Your task to perform on an android device: change the clock display to analog Image 0: 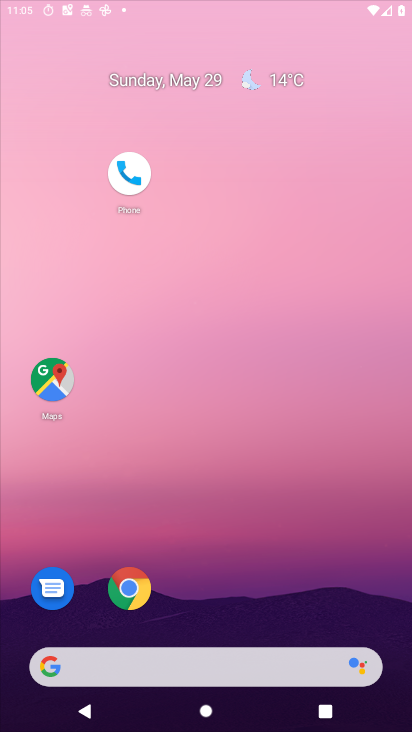
Step 0: click (51, 249)
Your task to perform on an android device: change the clock display to analog Image 1: 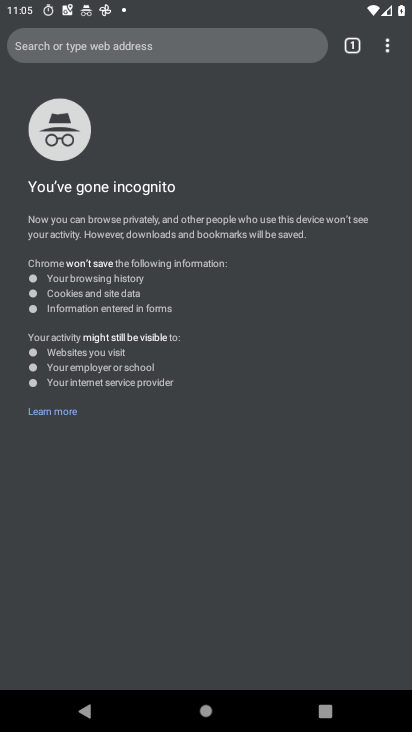
Step 1: press back button
Your task to perform on an android device: change the clock display to analog Image 2: 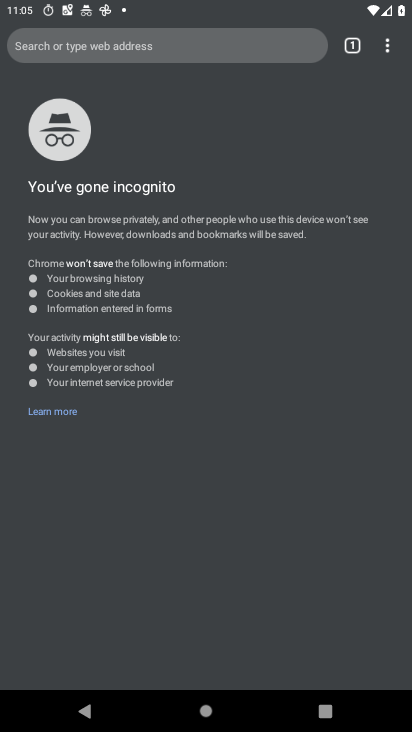
Step 2: press back button
Your task to perform on an android device: change the clock display to analog Image 3: 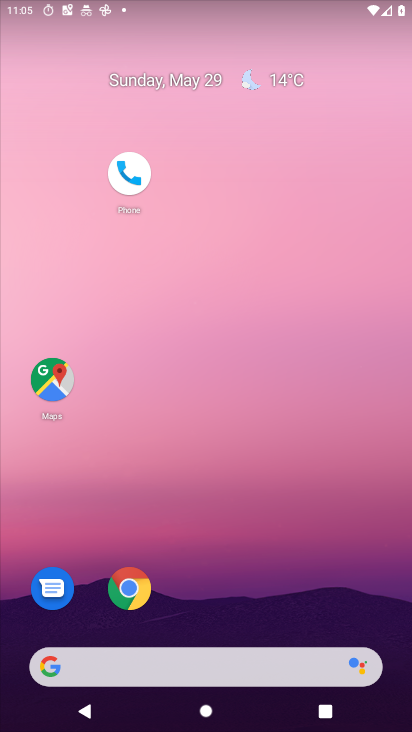
Step 3: press back button
Your task to perform on an android device: change the clock display to analog Image 4: 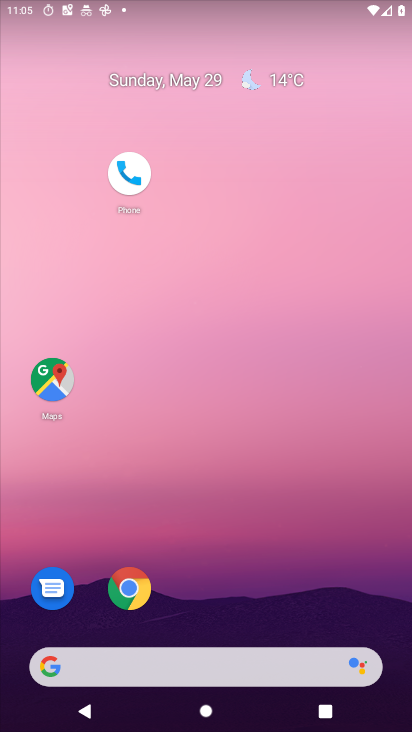
Step 4: drag from (216, 201) to (203, 159)
Your task to perform on an android device: change the clock display to analog Image 5: 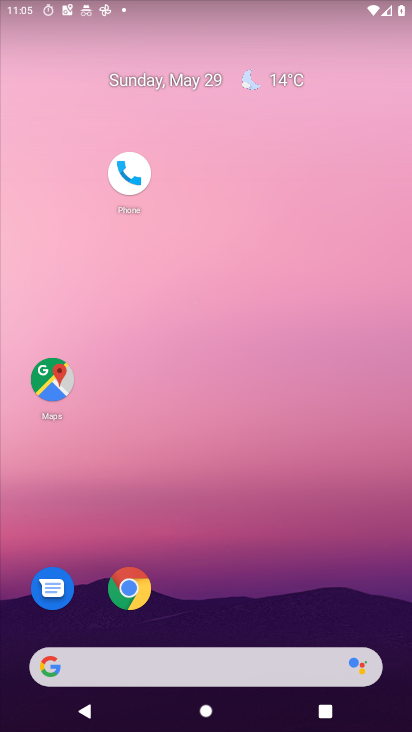
Step 5: drag from (255, 662) to (190, 226)
Your task to perform on an android device: change the clock display to analog Image 6: 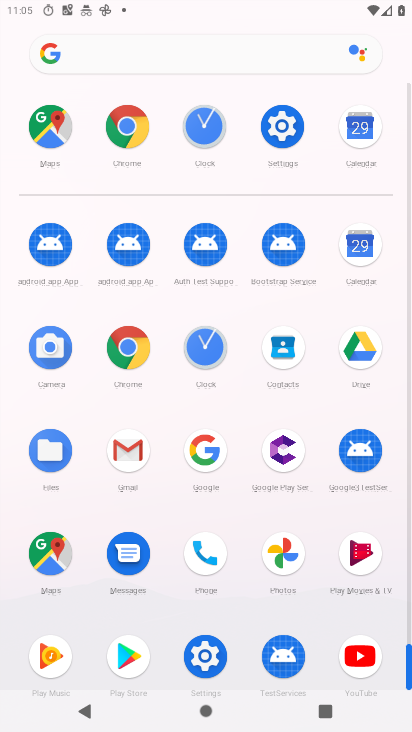
Step 6: click (214, 345)
Your task to perform on an android device: change the clock display to analog Image 7: 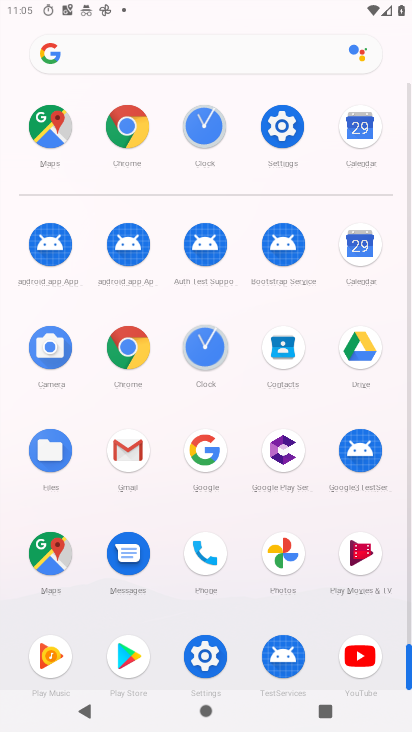
Step 7: click (210, 348)
Your task to perform on an android device: change the clock display to analog Image 8: 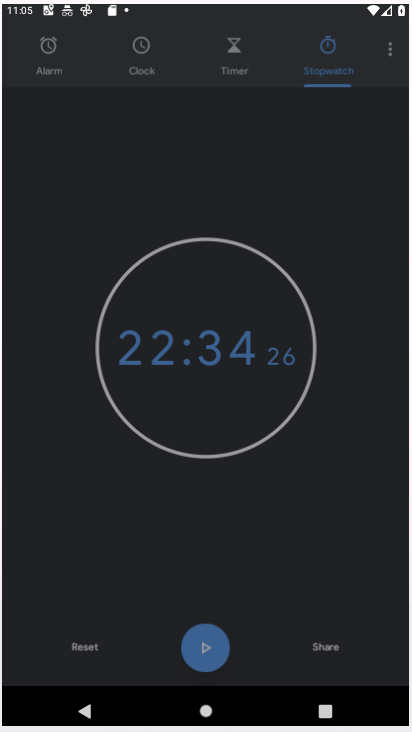
Step 8: click (206, 351)
Your task to perform on an android device: change the clock display to analog Image 9: 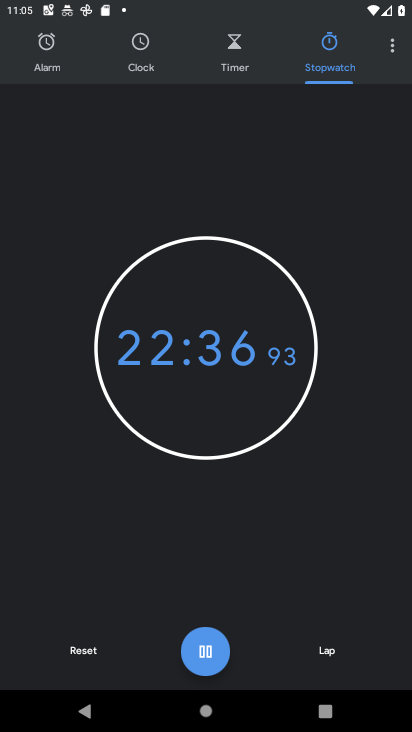
Step 9: click (399, 54)
Your task to perform on an android device: change the clock display to analog Image 10: 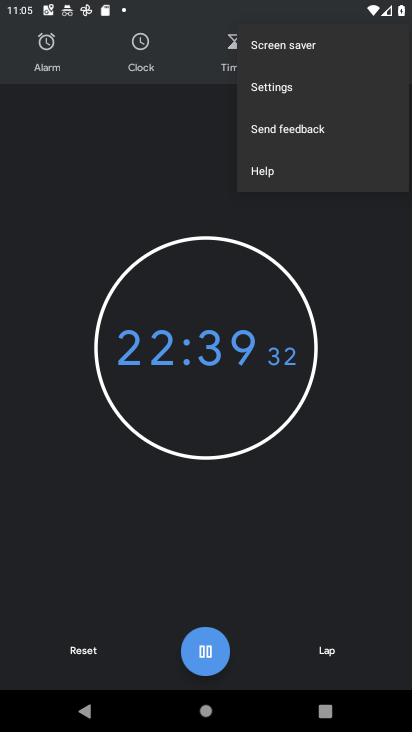
Step 10: click (271, 91)
Your task to perform on an android device: change the clock display to analog Image 11: 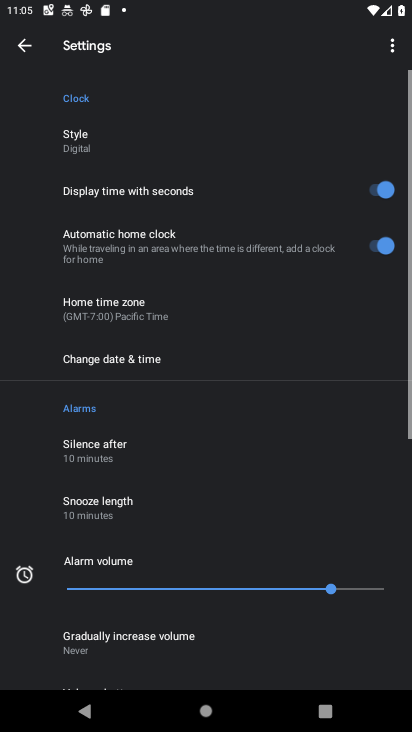
Step 11: click (271, 89)
Your task to perform on an android device: change the clock display to analog Image 12: 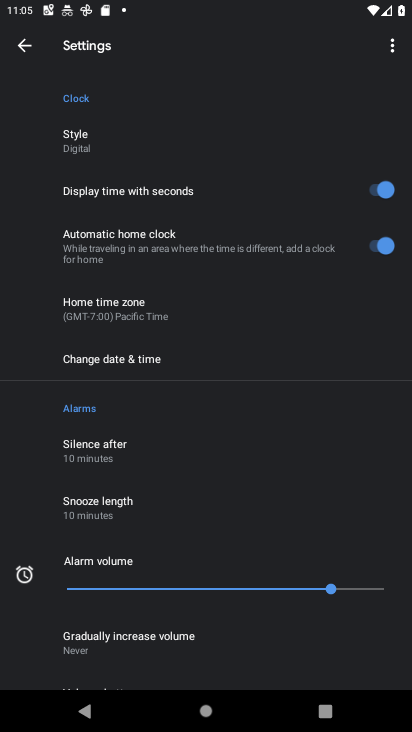
Step 12: click (109, 130)
Your task to perform on an android device: change the clock display to analog Image 13: 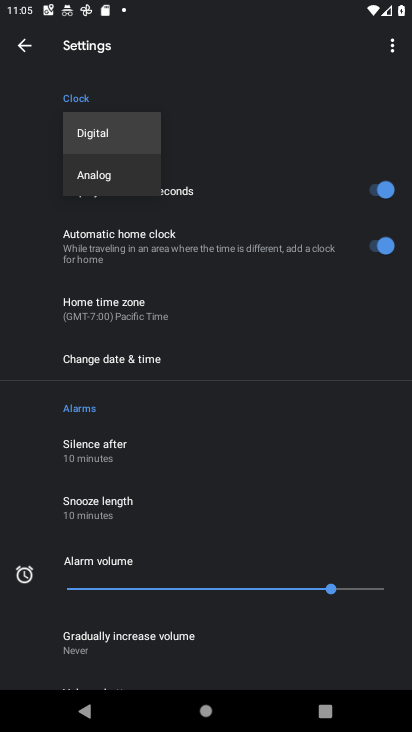
Step 13: click (91, 189)
Your task to perform on an android device: change the clock display to analog Image 14: 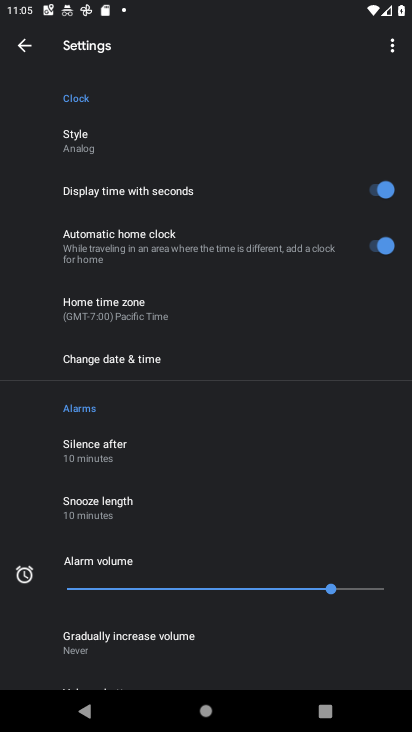
Step 14: task complete